Your task to perform on an android device: Go to battery settings Image 0: 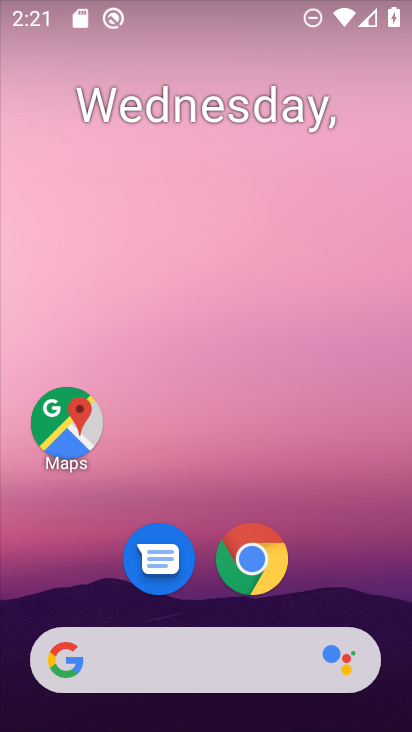
Step 0: press home button
Your task to perform on an android device: Go to battery settings Image 1: 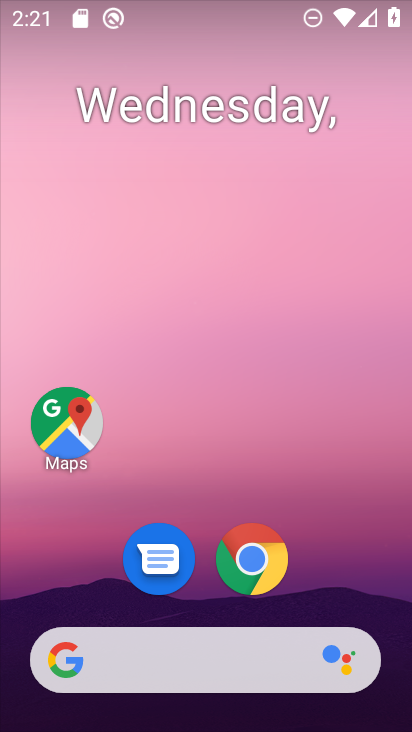
Step 1: drag from (337, 583) to (343, 10)
Your task to perform on an android device: Go to battery settings Image 2: 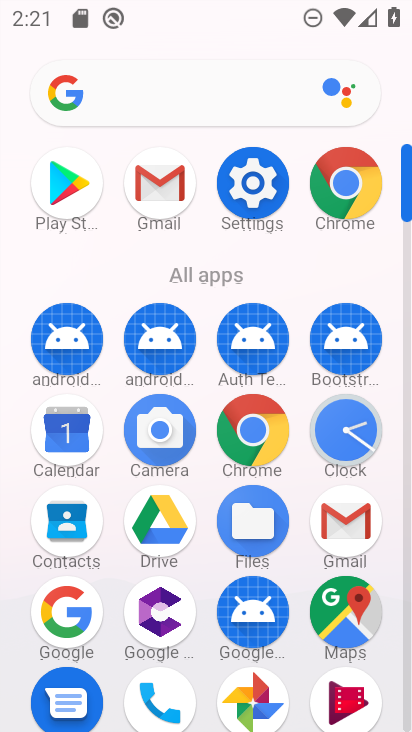
Step 2: click (254, 211)
Your task to perform on an android device: Go to battery settings Image 3: 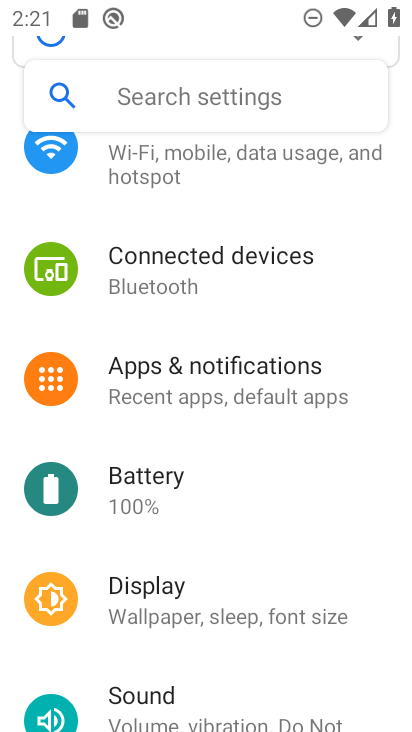
Step 3: click (197, 469)
Your task to perform on an android device: Go to battery settings Image 4: 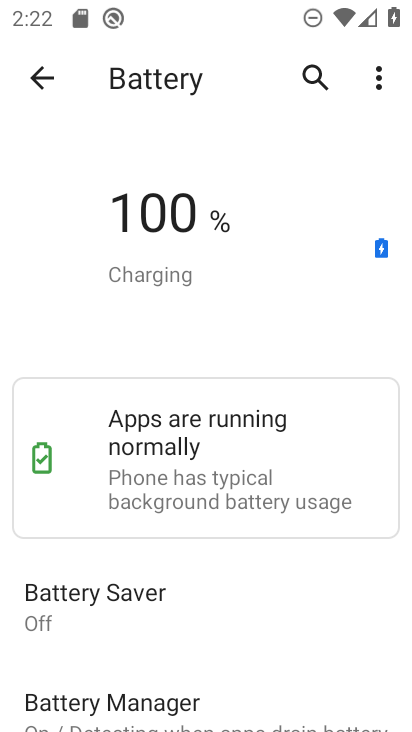
Step 4: task complete